Your task to perform on an android device: choose inbox layout in the gmail app Image 0: 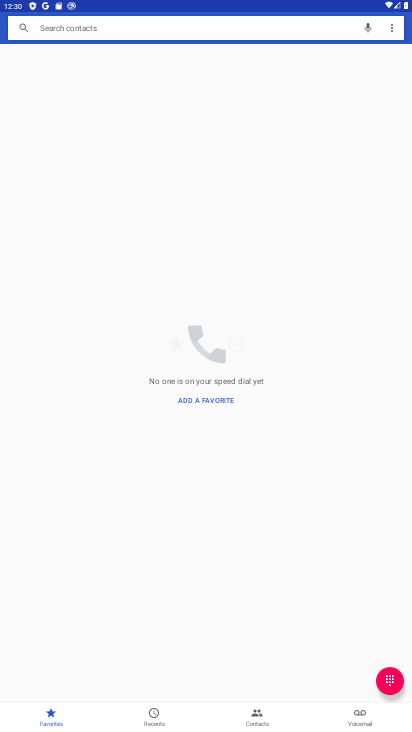
Step 0: press home button
Your task to perform on an android device: choose inbox layout in the gmail app Image 1: 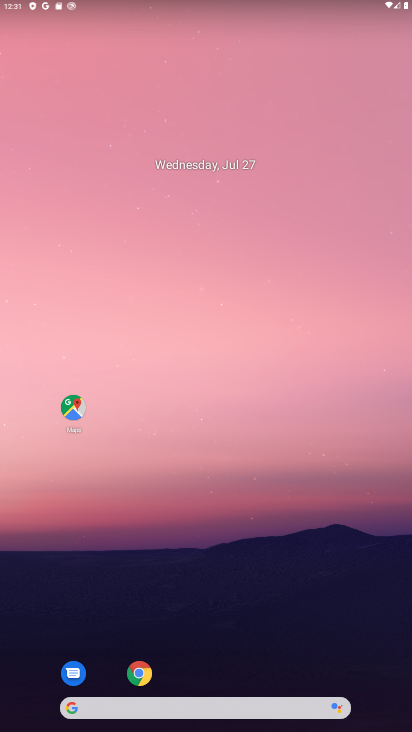
Step 1: drag from (247, 676) to (242, 89)
Your task to perform on an android device: choose inbox layout in the gmail app Image 2: 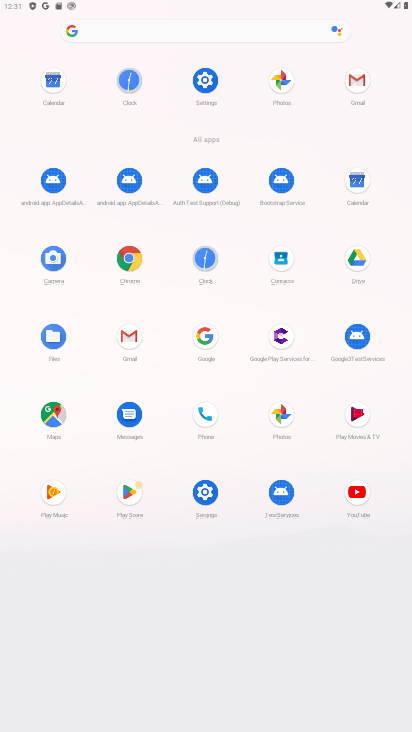
Step 2: click (362, 86)
Your task to perform on an android device: choose inbox layout in the gmail app Image 3: 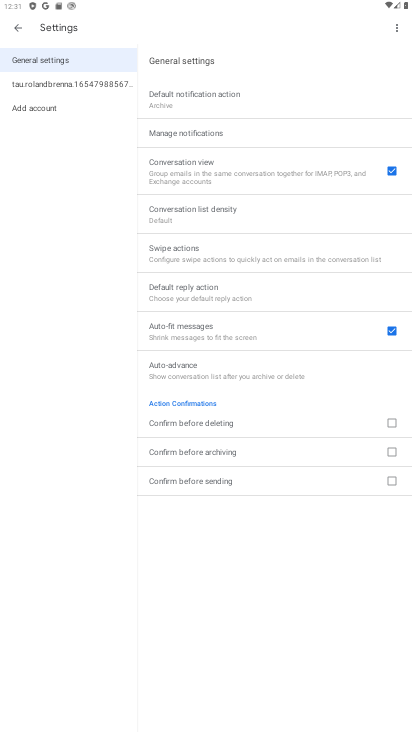
Step 3: click (56, 88)
Your task to perform on an android device: choose inbox layout in the gmail app Image 4: 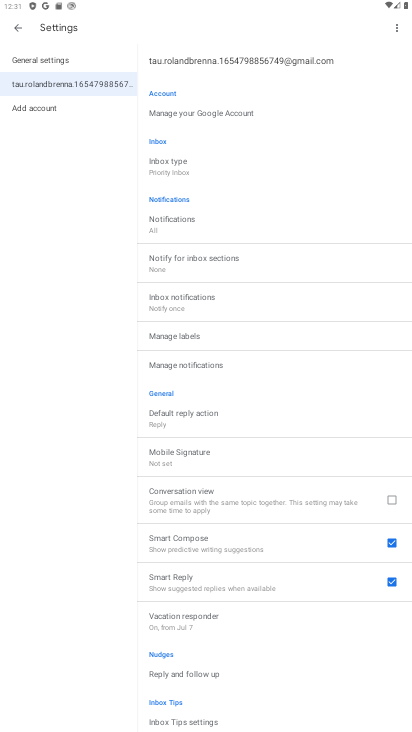
Step 4: click (171, 176)
Your task to perform on an android device: choose inbox layout in the gmail app Image 5: 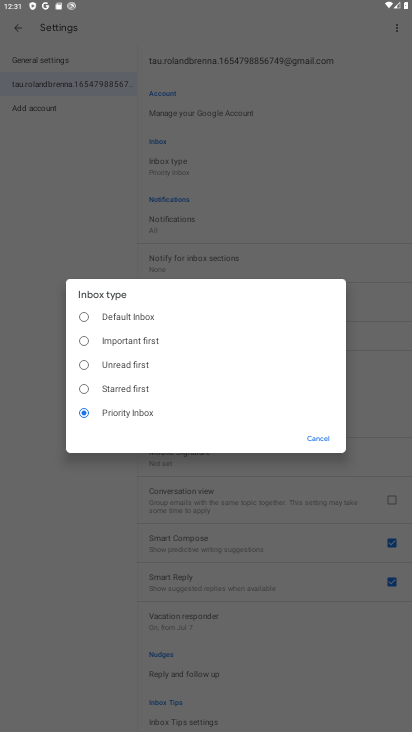
Step 5: click (88, 385)
Your task to perform on an android device: choose inbox layout in the gmail app Image 6: 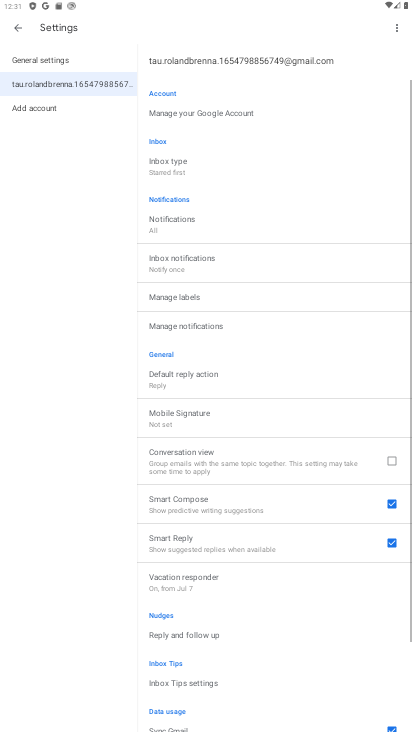
Step 6: task complete